Your task to perform on an android device: allow notifications from all sites in the chrome app Image 0: 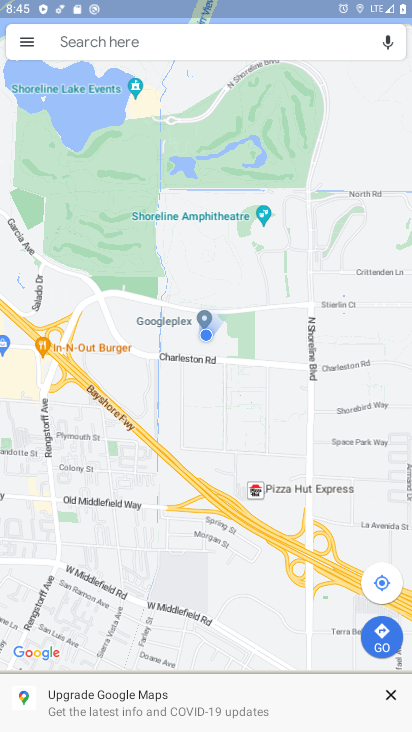
Step 0: press home button
Your task to perform on an android device: allow notifications from all sites in the chrome app Image 1: 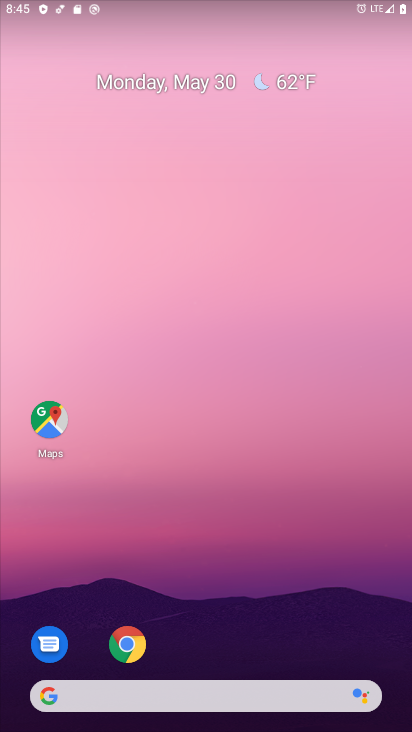
Step 1: click (131, 646)
Your task to perform on an android device: allow notifications from all sites in the chrome app Image 2: 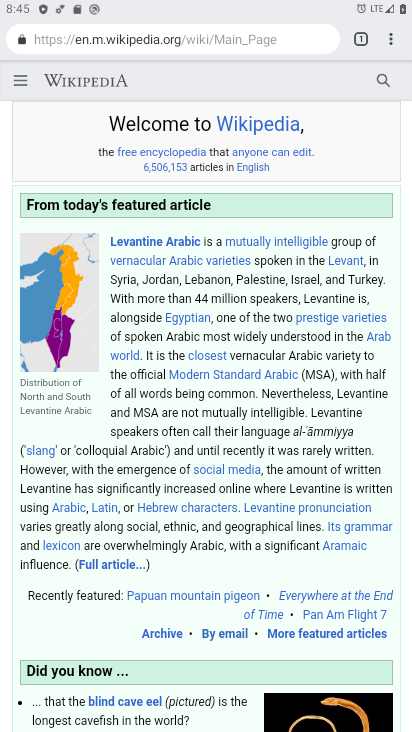
Step 2: click (391, 42)
Your task to perform on an android device: allow notifications from all sites in the chrome app Image 3: 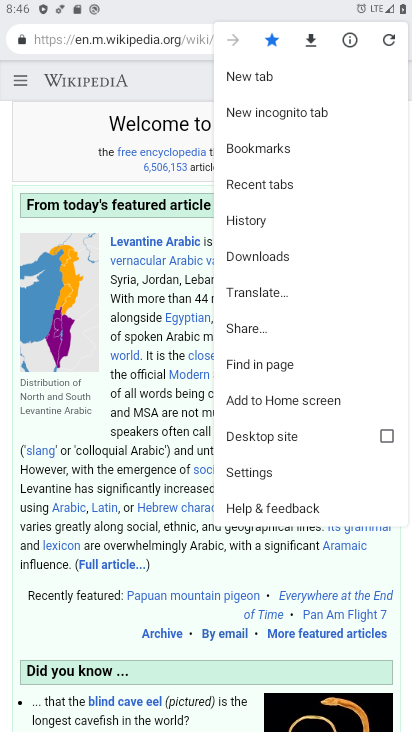
Step 3: click (267, 473)
Your task to perform on an android device: allow notifications from all sites in the chrome app Image 4: 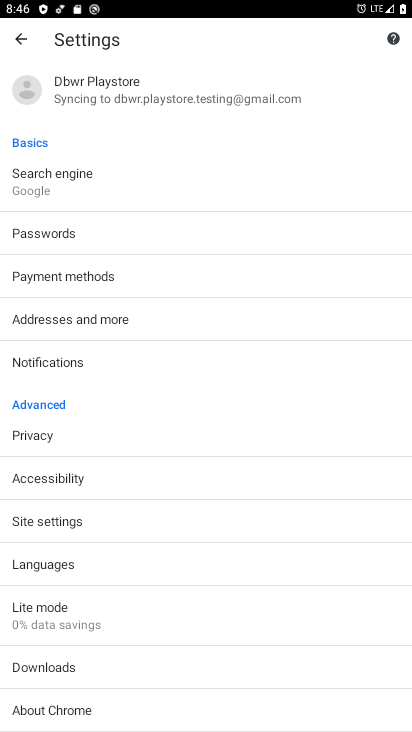
Step 4: click (53, 526)
Your task to perform on an android device: allow notifications from all sites in the chrome app Image 5: 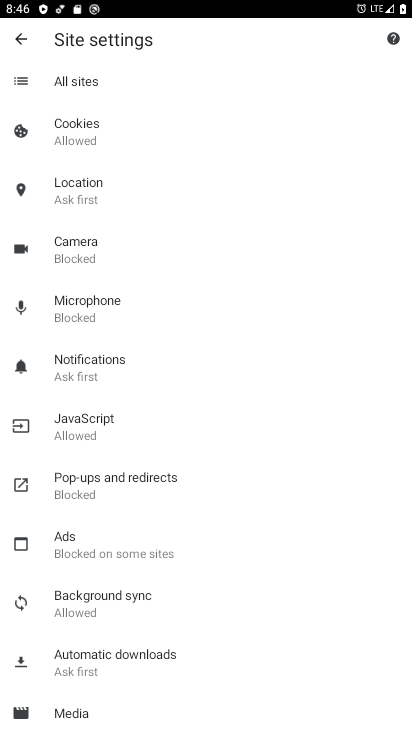
Step 5: click (87, 355)
Your task to perform on an android device: allow notifications from all sites in the chrome app Image 6: 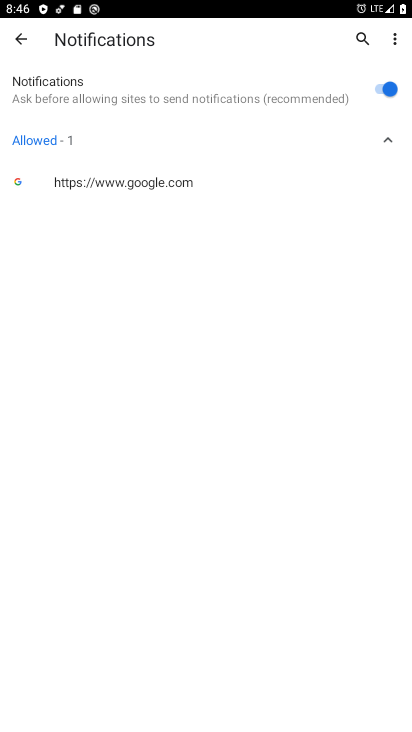
Step 6: task complete